Your task to perform on an android device: find photos in the google photos app Image 0: 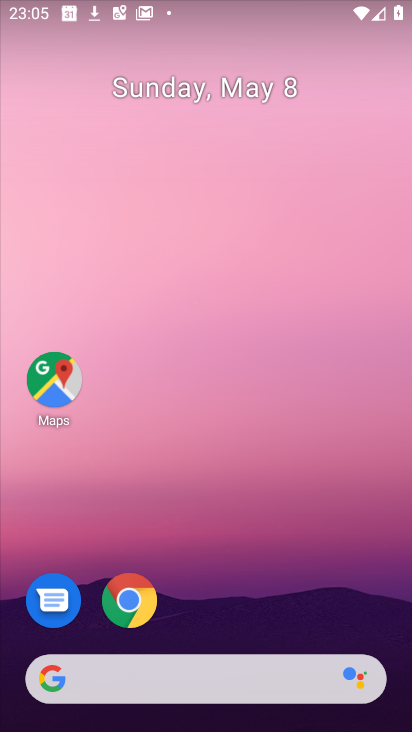
Step 0: drag from (269, 710) to (339, 335)
Your task to perform on an android device: find photos in the google photos app Image 1: 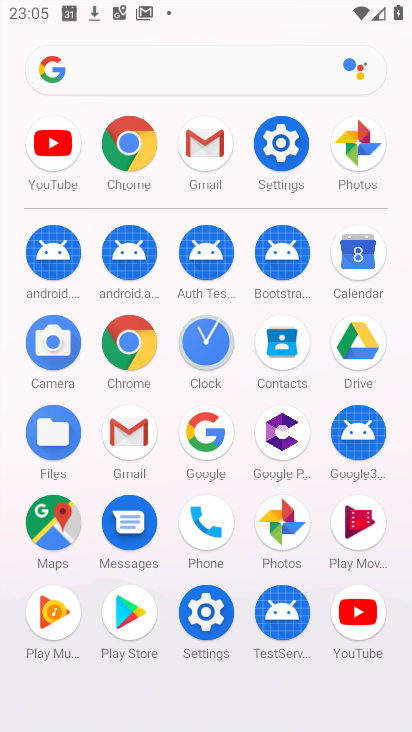
Step 1: click (286, 536)
Your task to perform on an android device: find photos in the google photos app Image 2: 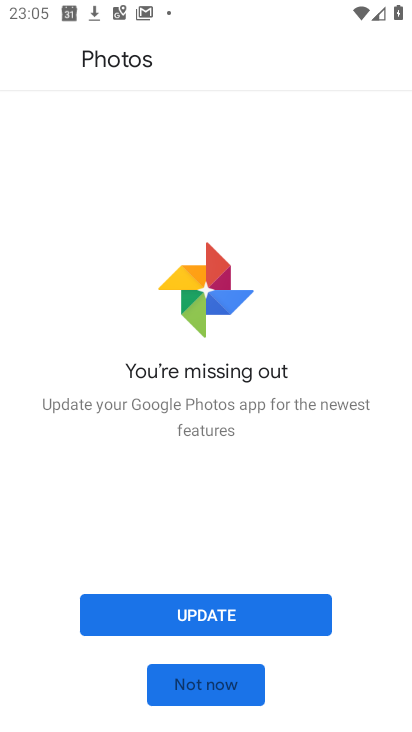
Step 2: click (183, 687)
Your task to perform on an android device: find photos in the google photos app Image 3: 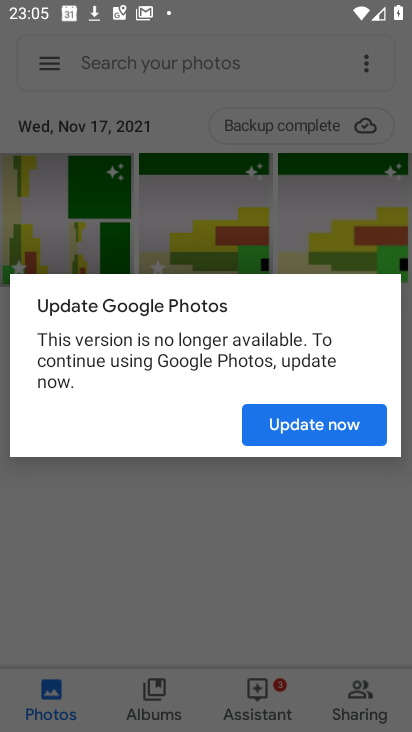
Step 3: click (300, 433)
Your task to perform on an android device: find photos in the google photos app Image 4: 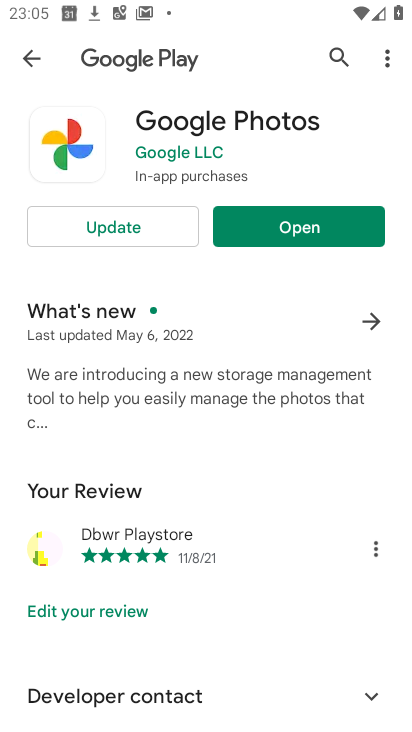
Step 4: click (284, 231)
Your task to perform on an android device: find photos in the google photos app Image 5: 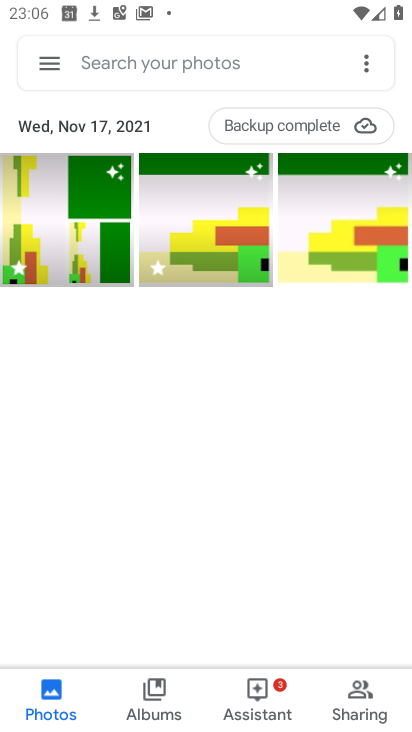
Step 5: task complete